Your task to perform on an android device: Open the calendar app, open the side menu, and click the "Day" option Image 0: 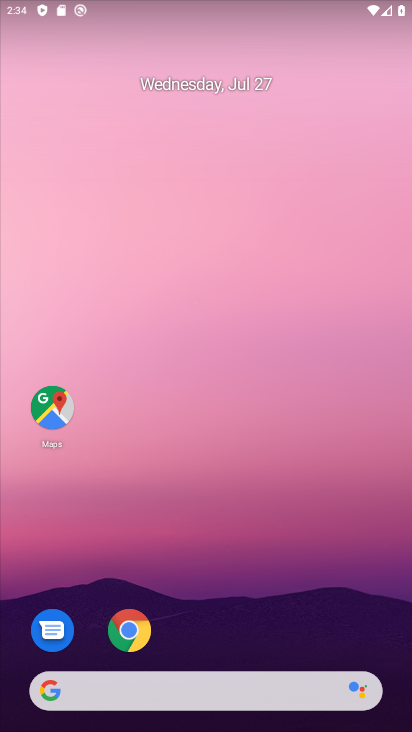
Step 0: press home button
Your task to perform on an android device: Open the calendar app, open the side menu, and click the "Day" option Image 1: 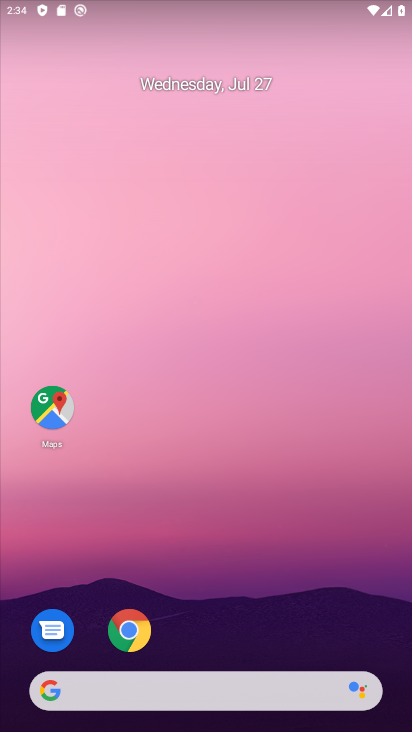
Step 1: drag from (261, 646) to (246, 208)
Your task to perform on an android device: Open the calendar app, open the side menu, and click the "Day" option Image 2: 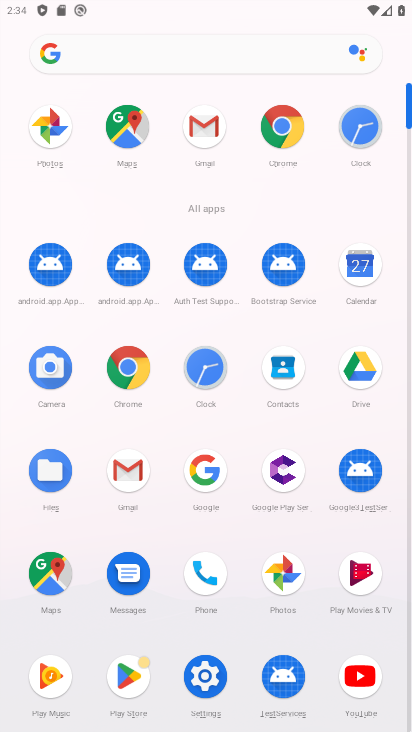
Step 2: click (354, 278)
Your task to perform on an android device: Open the calendar app, open the side menu, and click the "Day" option Image 3: 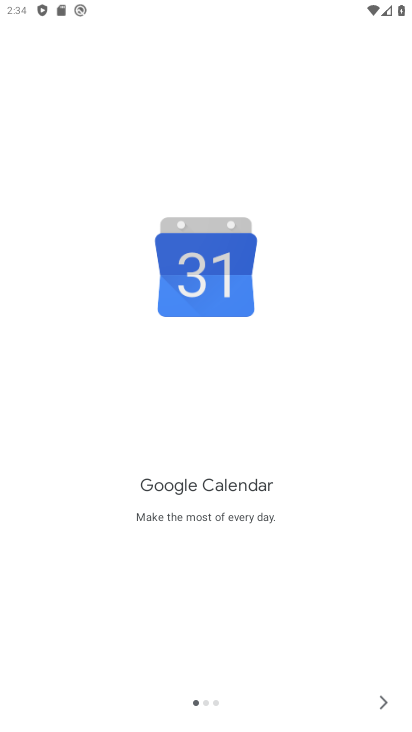
Step 3: click (377, 707)
Your task to perform on an android device: Open the calendar app, open the side menu, and click the "Day" option Image 4: 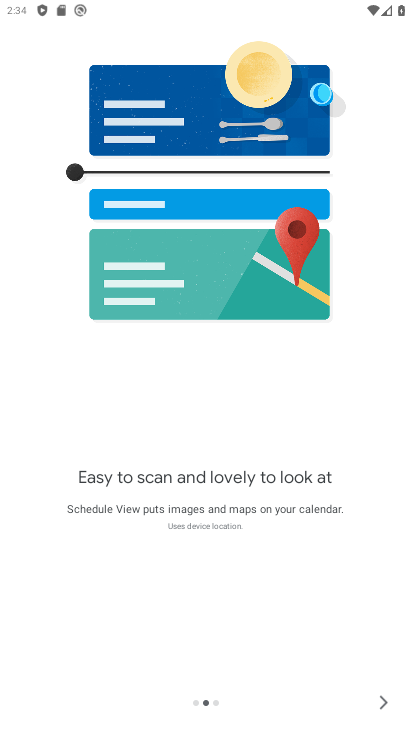
Step 4: click (393, 694)
Your task to perform on an android device: Open the calendar app, open the side menu, and click the "Day" option Image 5: 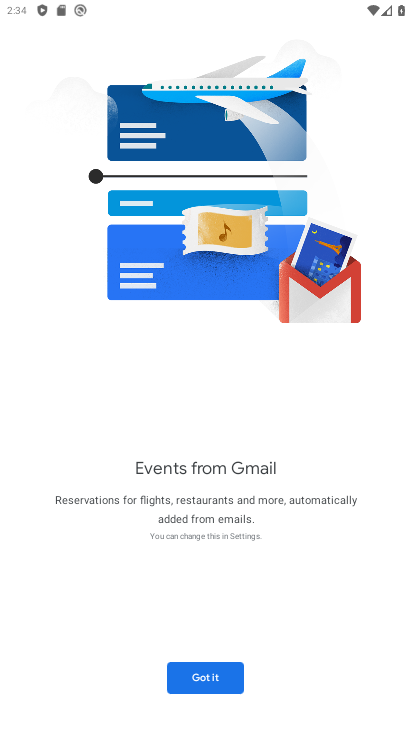
Step 5: click (189, 686)
Your task to perform on an android device: Open the calendar app, open the side menu, and click the "Day" option Image 6: 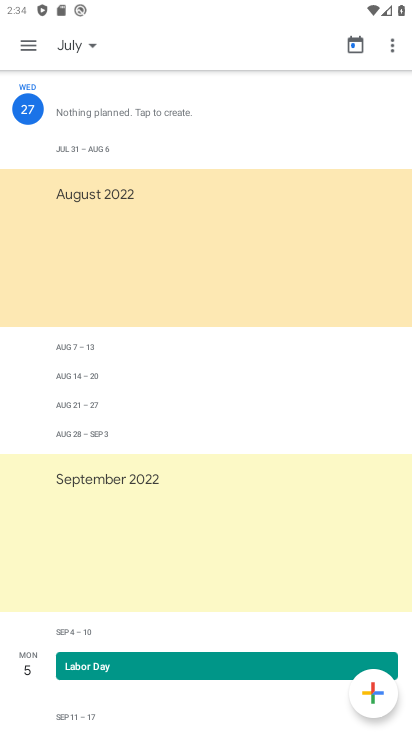
Step 6: click (26, 44)
Your task to perform on an android device: Open the calendar app, open the side menu, and click the "Day" option Image 7: 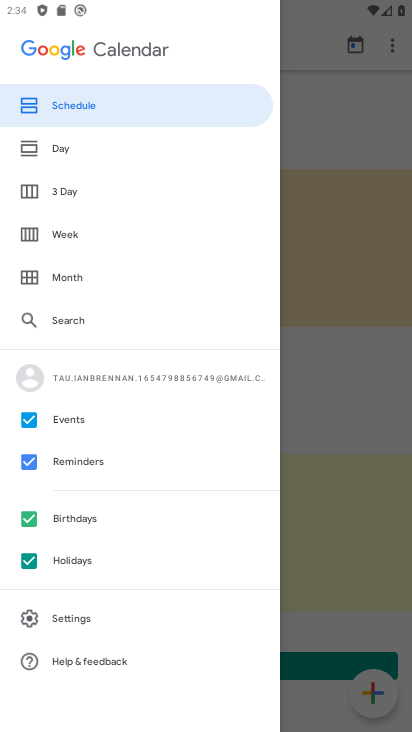
Step 7: click (59, 151)
Your task to perform on an android device: Open the calendar app, open the side menu, and click the "Day" option Image 8: 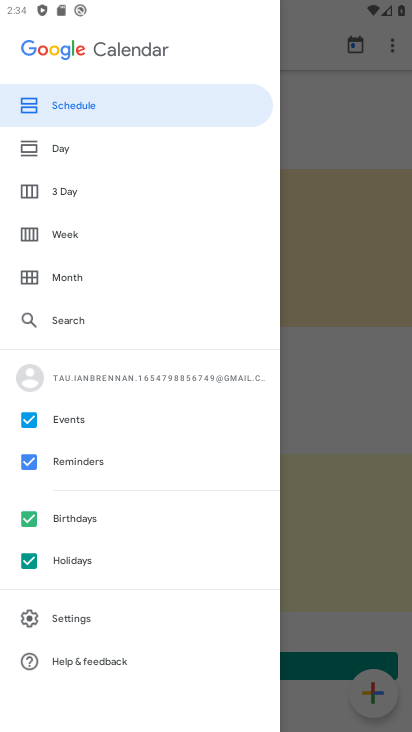
Step 8: click (59, 151)
Your task to perform on an android device: Open the calendar app, open the side menu, and click the "Day" option Image 9: 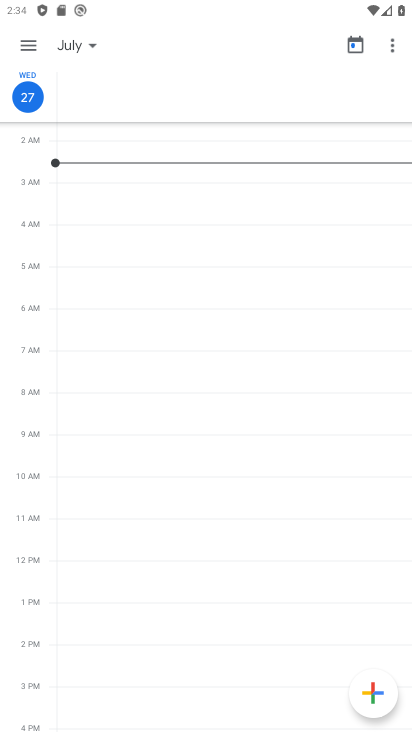
Step 9: task complete